Your task to perform on an android device: toggle location history Image 0: 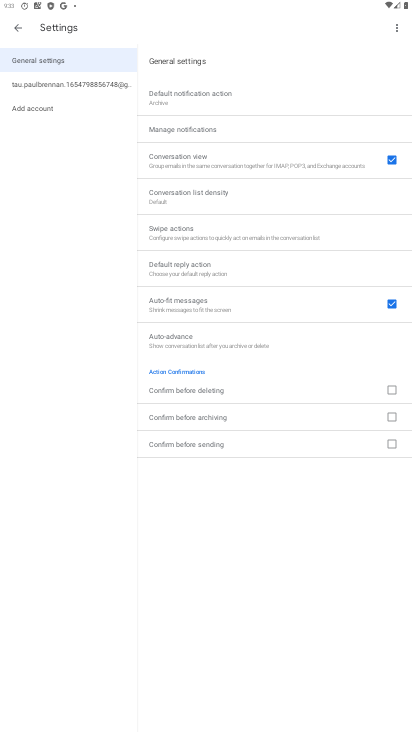
Step 0: press home button
Your task to perform on an android device: toggle location history Image 1: 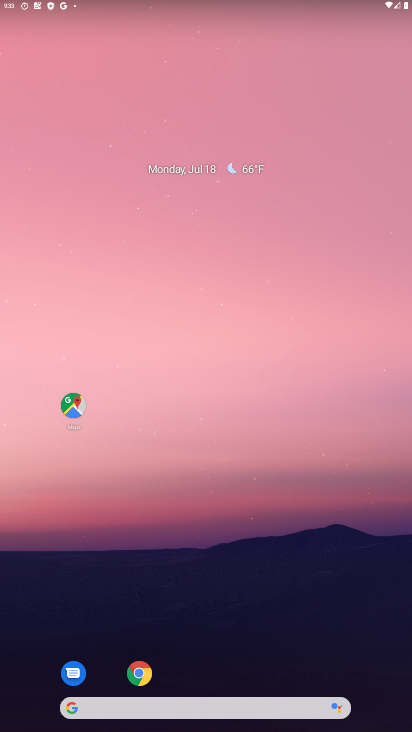
Step 1: drag from (249, 687) to (201, 167)
Your task to perform on an android device: toggle location history Image 2: 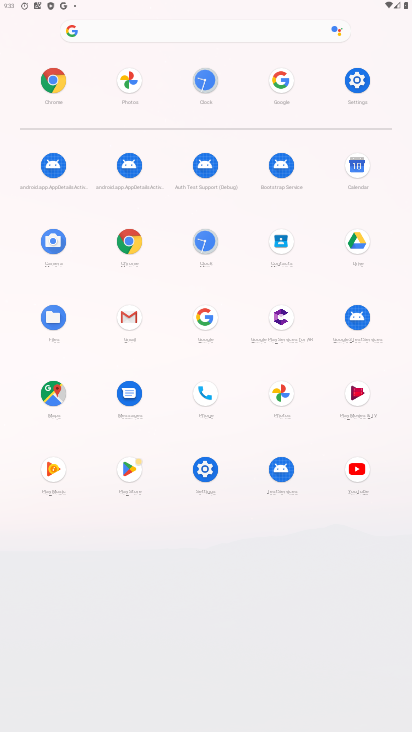
Step 2: click (354, 82)
Your task to perform on an android device: toggle location history Image 3: 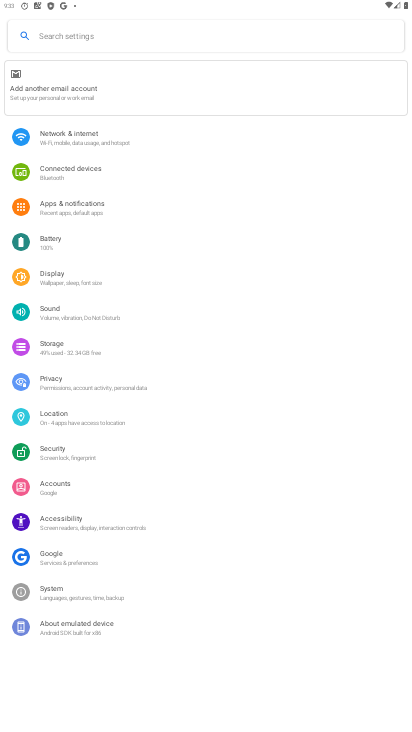
Step 3: click (75, 417)
Your task to perform on an android device: toggle location history Image 4: 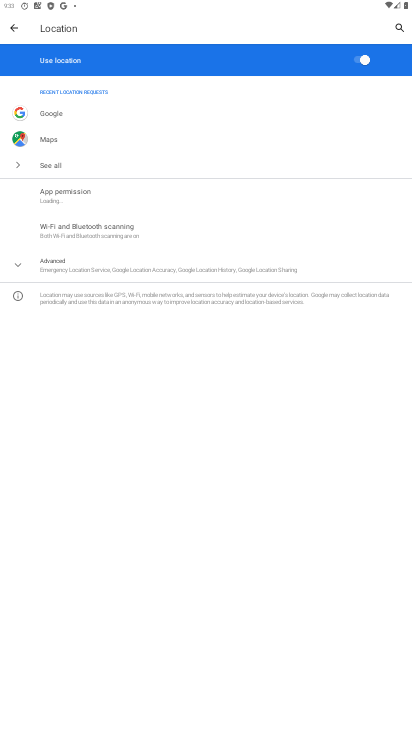
Step 4: click (15, 272)
Your task to perform on an android device: toggle location history Image 5: 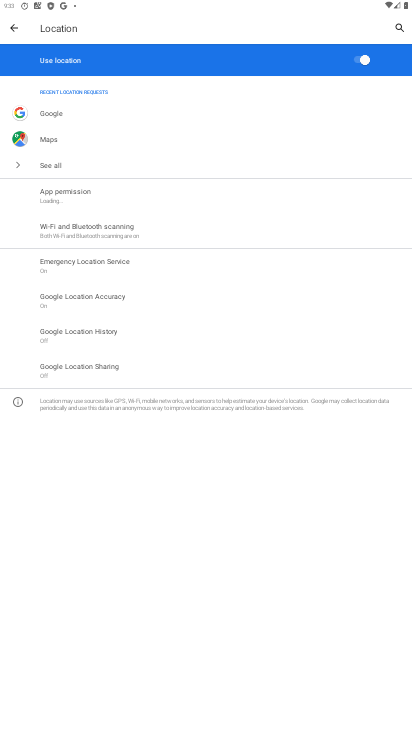
Step 5: click (104, 333)
Your task to perform on an android device: toggle location history Image 6: 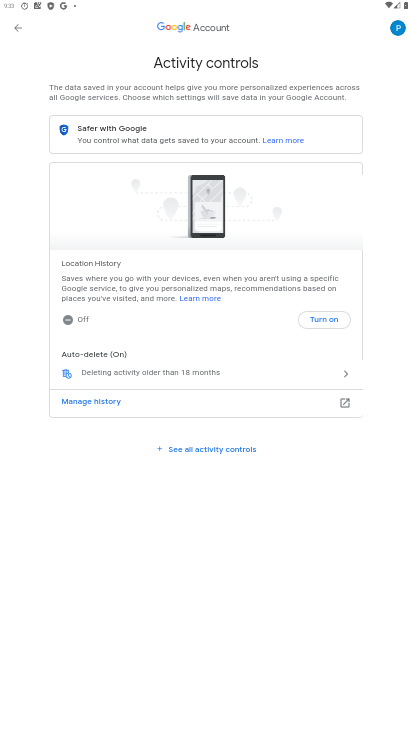
Step 6: click (322, 319)
Your task to perform on an android device: toggle location history Image 7: 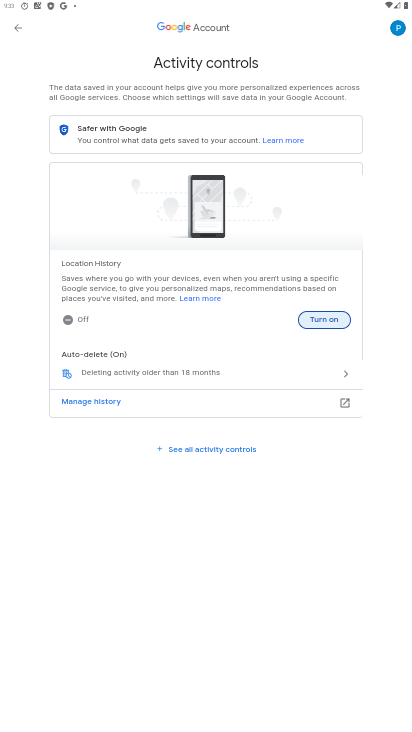
Step 7: click (325, 317)
Your task to perform on an android device: toggle location history Image 8: 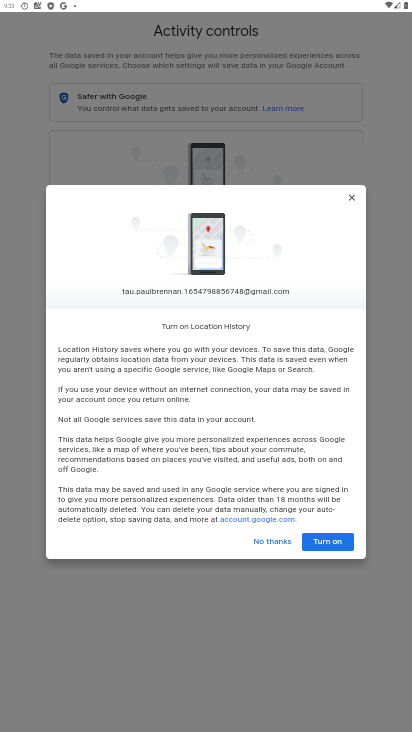
Step 8: click (334, 557)
Your task to perform on an android device: toggle location history Image 9: 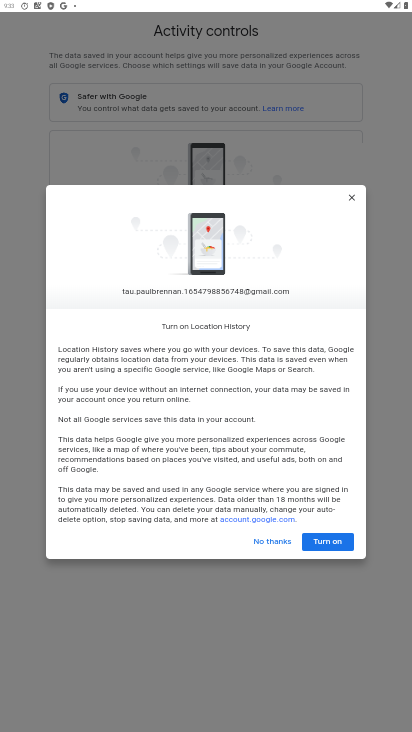
Step 9: click (331, 543)
Your task to perform on an android device: toggle location history Image 10: 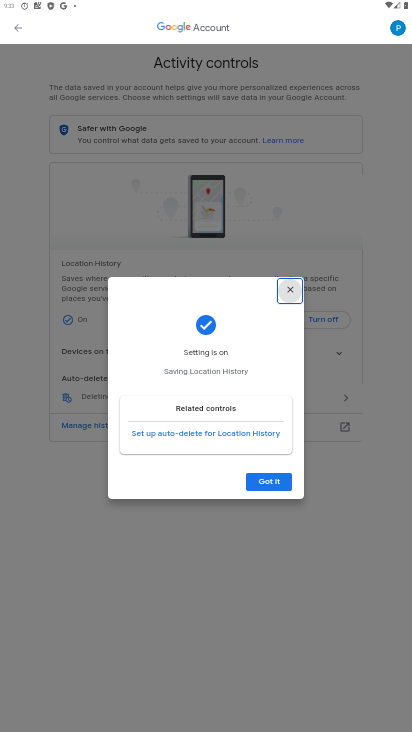
Step 10: click (280, 480)
Your task to perform on an android device: toggle location history Image 11: 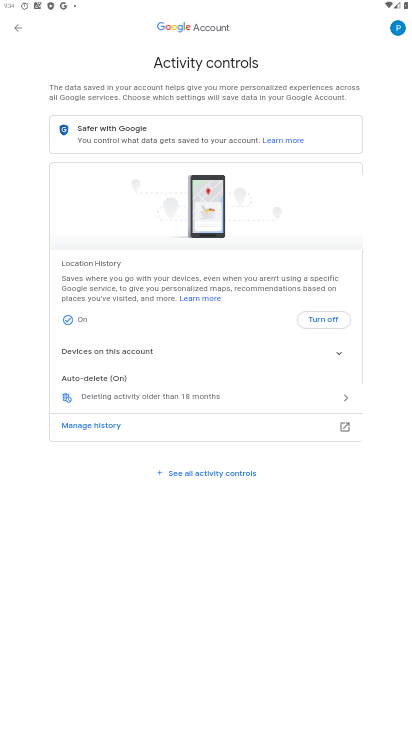
Step 11: task complete